Your task to perform on an android device: see sites visited before in the chrome app Image 0: 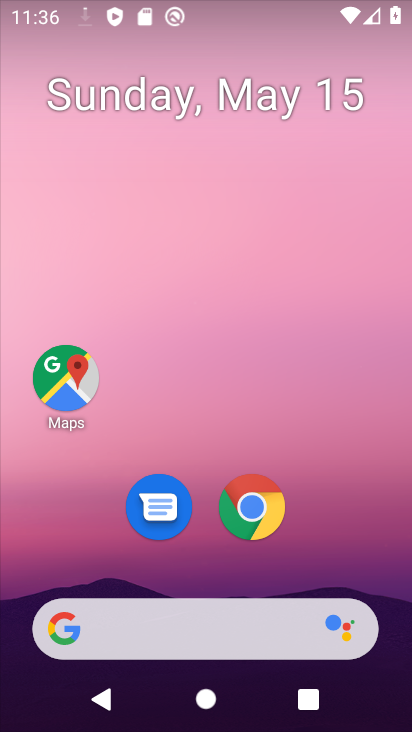
Step 0: click (251, 505)
Your task to perform on an android device: see sites visited before in the chrome app Image 1: 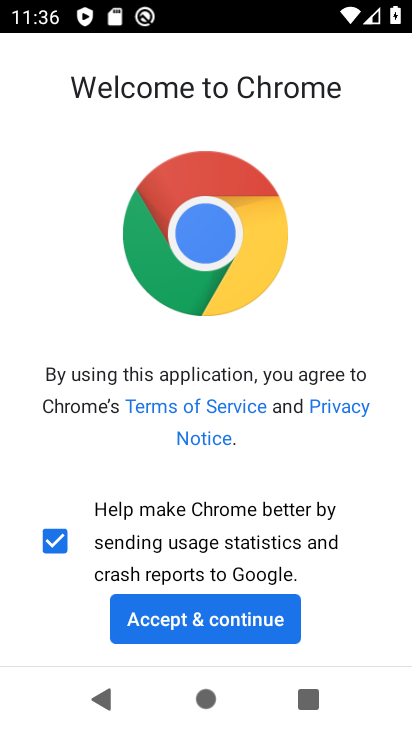
Step 1: click (251, 623)
Your task to perform on an android device: see sites visited before in the chrome app Image 2: 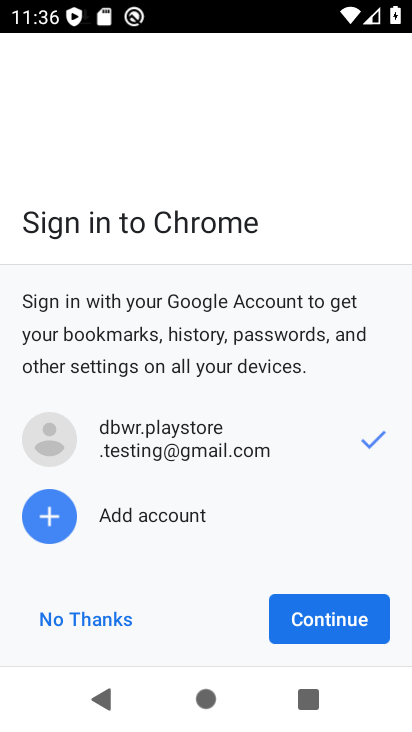
Step 2: click (318, 609)
Your task to perform on an android device: see sites visited before in the chrome app Image 3: 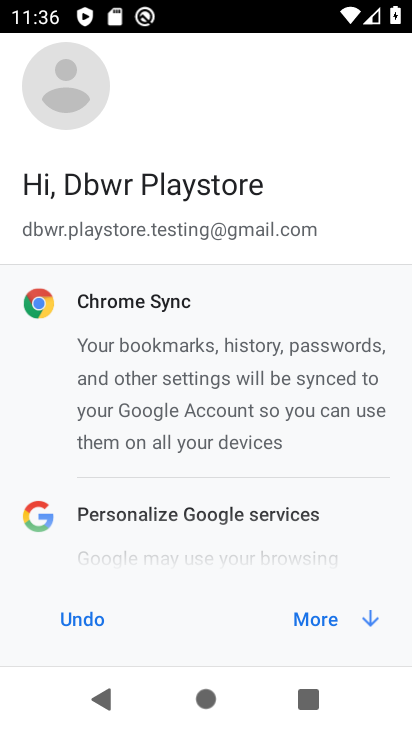
Step 3: click (325, 621)
Your task to perform on an android device: see sites visited before in the chrome app Image 4: 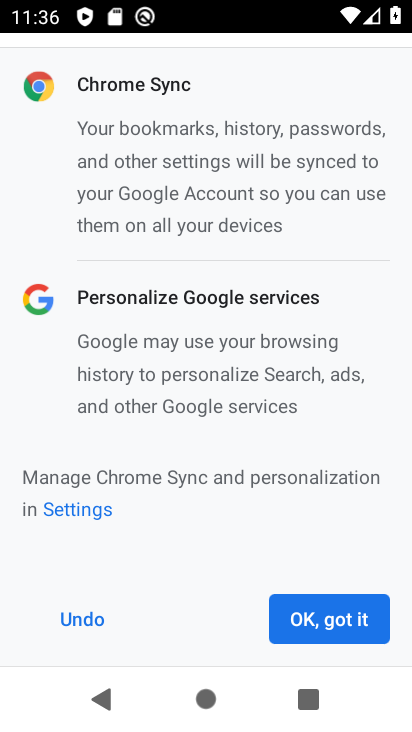
Step 4: click (325, 621)
Your task to perform on an android device: see sites visited before in the chrome app Image 5: 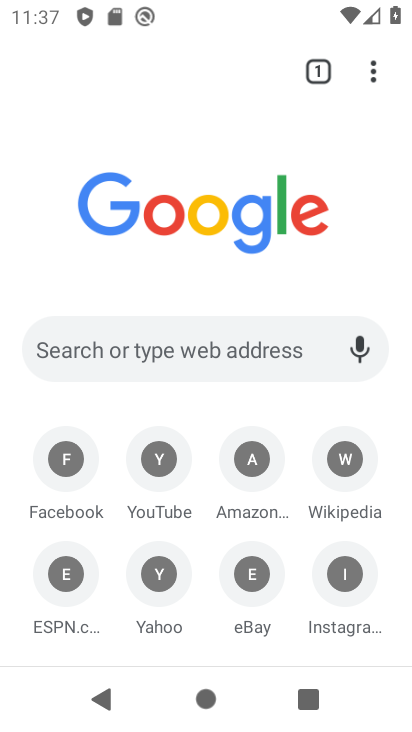
Step 5: click (373, 92)
Your task to perform on an android device: see sites visited before in the chrome app Image 6: 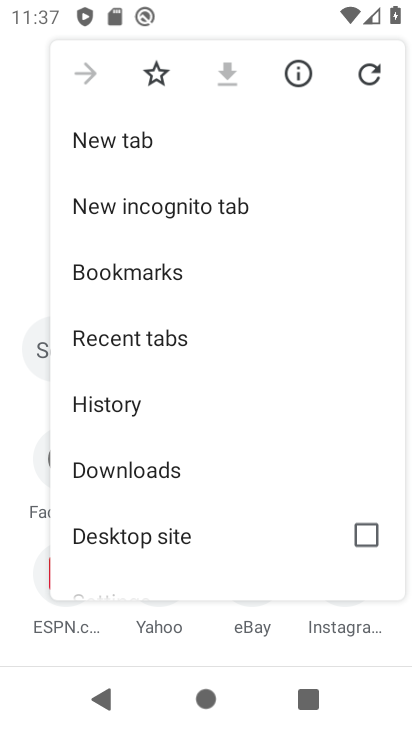
Step 6: click (122, 418)
Your task to perform on an android device: see sites visited before in the chrome app Image 7: 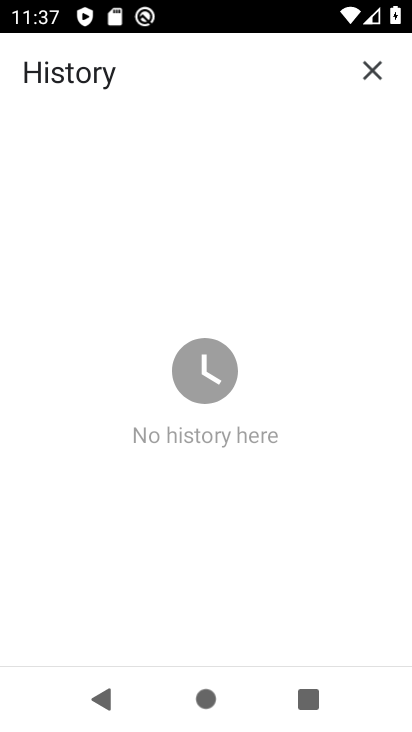
Step 7: task complete